Your task to perform on an android device: Open privacy settings Image 0: 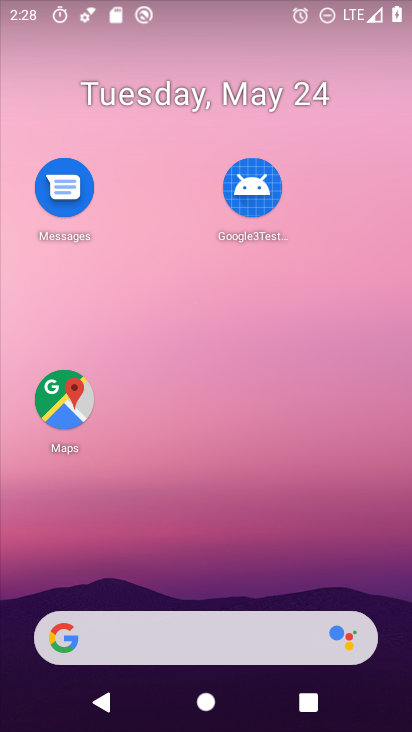
Step 0: drag from (221, 557) to (226, 133)
Your task to perform on an android device: Open privacy settings Image 1: 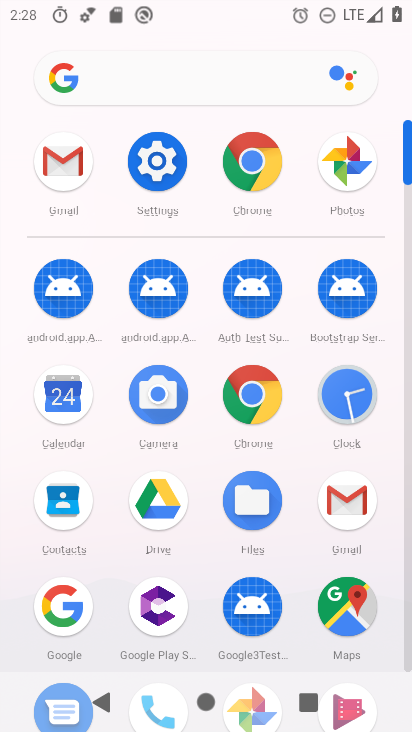
Step 1: click (256, 196)
Your task to perform on an android device: Open privacy settings Image 2: 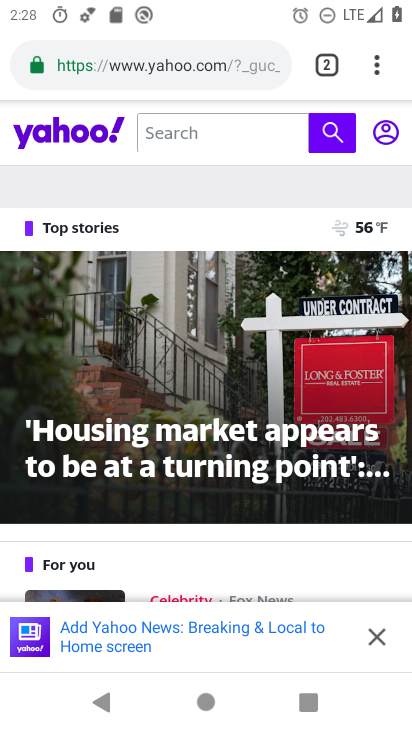
Step 2: click (378, 63)
Your task to perform on an android device: Open privacy settings Image 3: 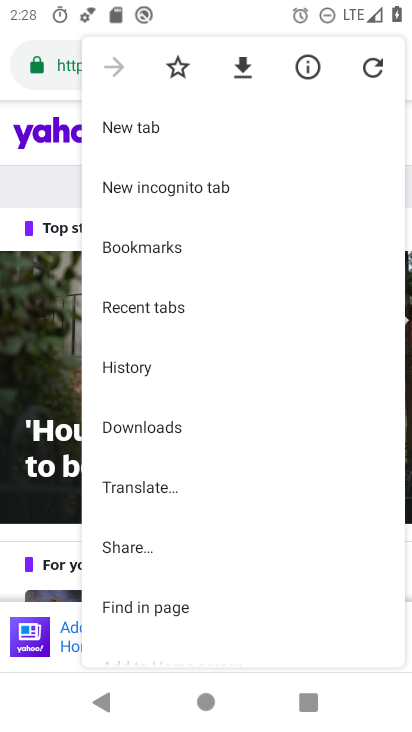
Step 3: drag from (173, 596) to (145, 182)
Your task to perform on an android device: Open privacy settings Image 4: 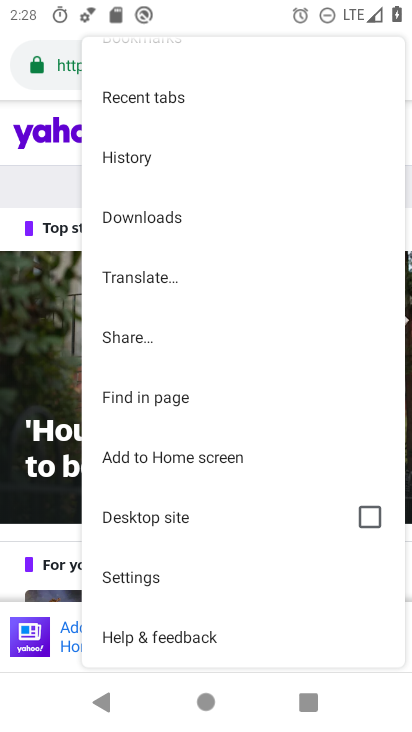
Step 4: click (142, 579)
Your task to perform on an android device: Open privacy settings Image 5: 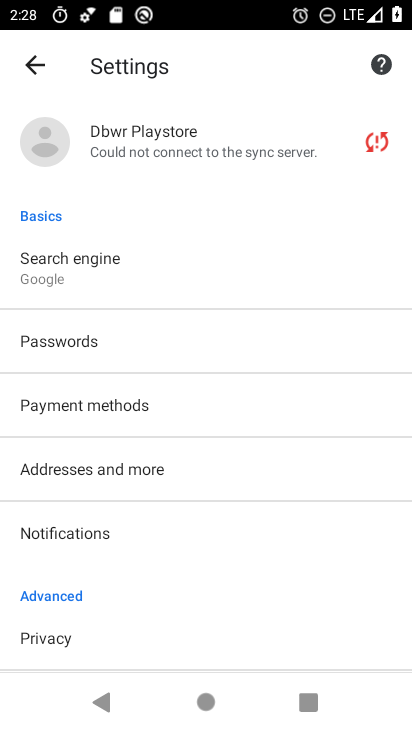
Step 5: click (67, 642)
Your task to perform on an android device: Open privacy settings Image 6: 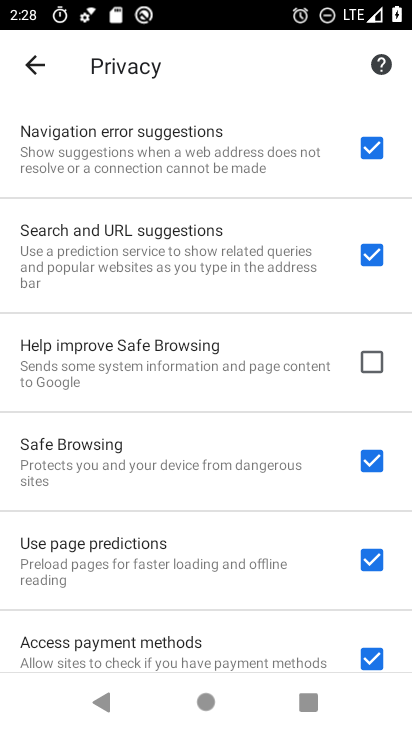
Step 6: task complete